Your task to perform on an android device: change text size in settings app Image 0: 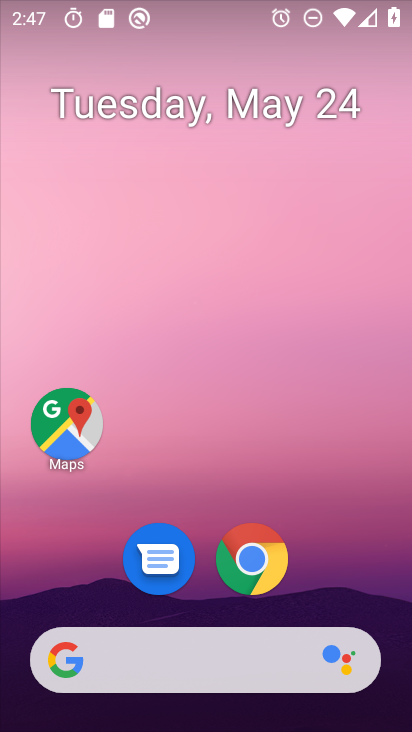
Step 0: drag from (394, 692) to (315, 229)
Your task to perform on an android device: change text size in settings app Image 1: 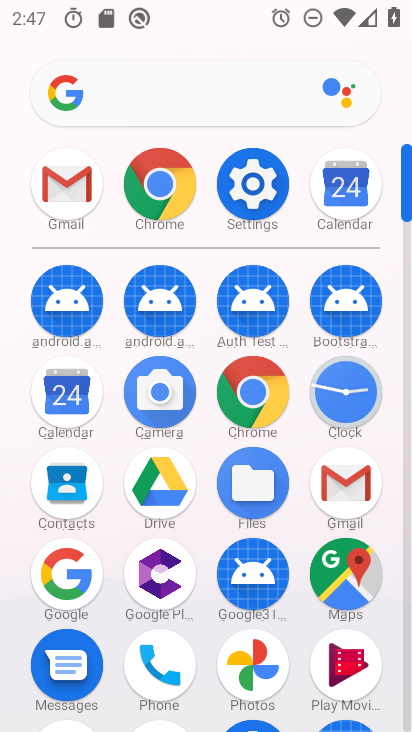
Step 1: click (254, 187)
Your task to perform on an android device: change text size in settings app Image 2: 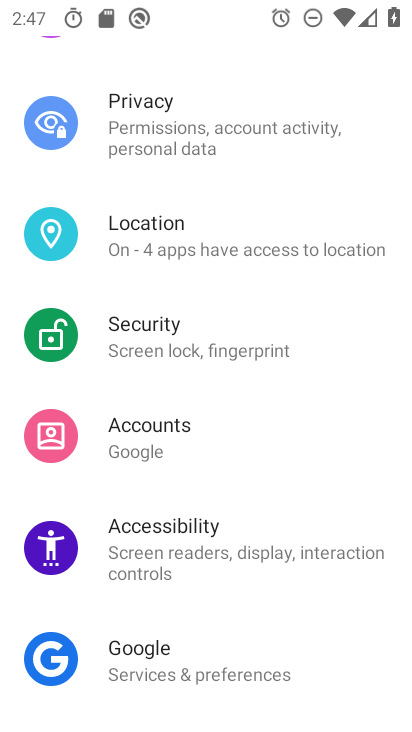
Step 2: drag from (304, 114) to (378, 647)
Your task to perform on an android device: change text size in settings app Image 3: 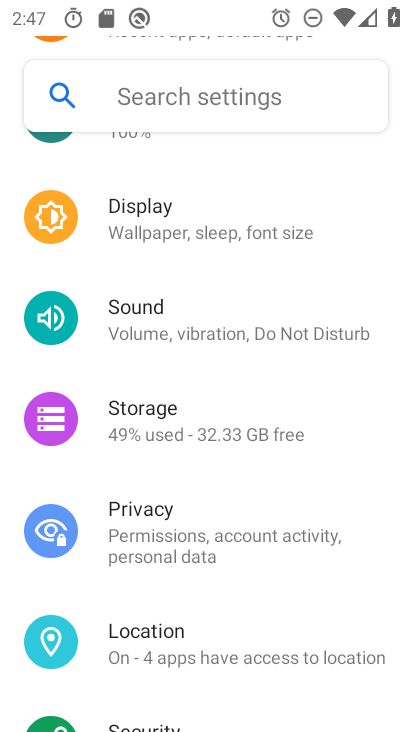
Step 3: click (200, 224)
Your task to perform on an android device: change text size in settings app Image 4: 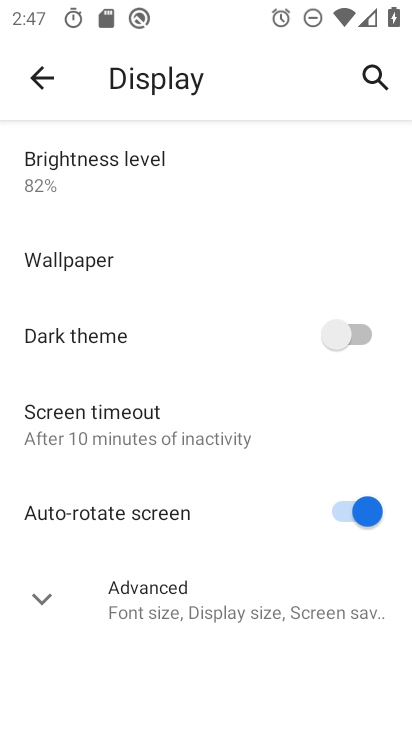
Step 4: click (27, 605)
Your task to perform on an android device: change text size in settings app Image 5: 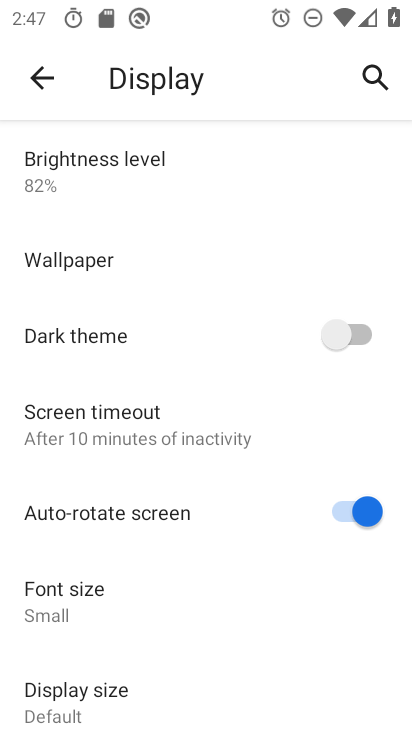
Step 5: drag from (234, 672) to (198, 292)
Your task to perform on an android device: change text size in settings app Image 6: 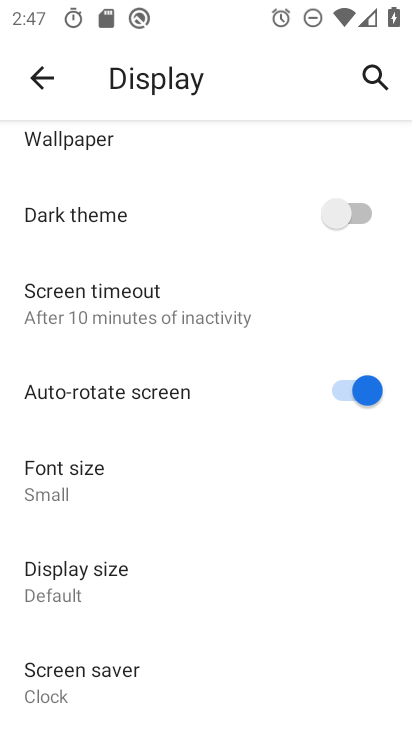
Step 6: click (38, 462)
Your task to perform on an android device: change text size in settings app Image 7: 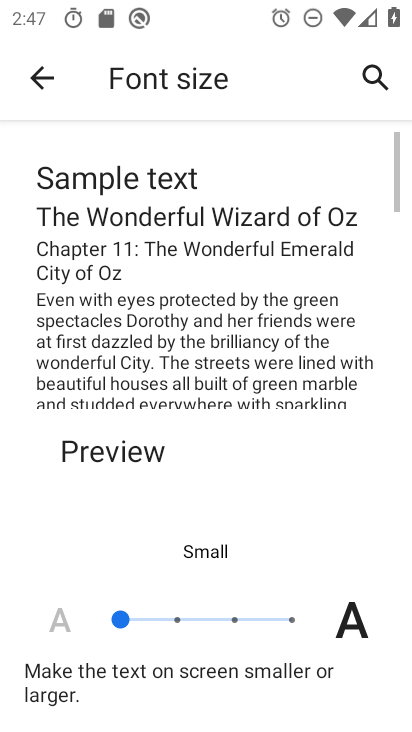
Step 7: click (167, 622)
Your task to perform on an android device: change text size in settings app Image 8: 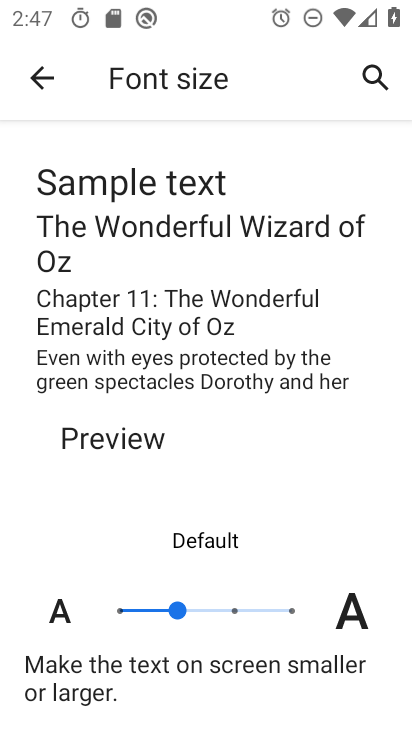
Step 8: task complete